Your task to perform on an android device: change text size in settings app Image 0: 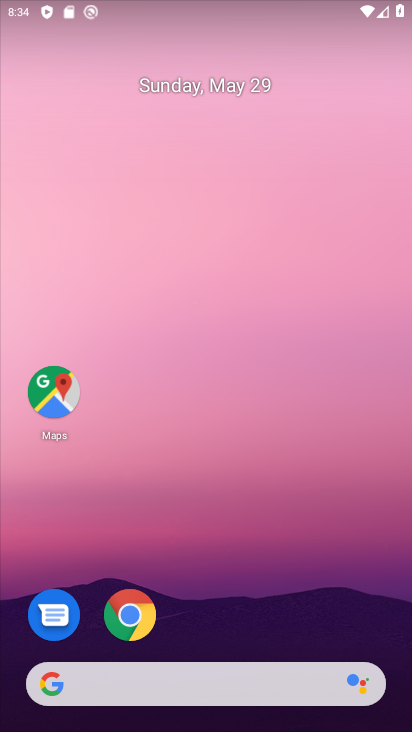
Step 0: drag from (233, 624) to (270, 0)
Your task to perform on an android device: change text size in settings app Image 1: 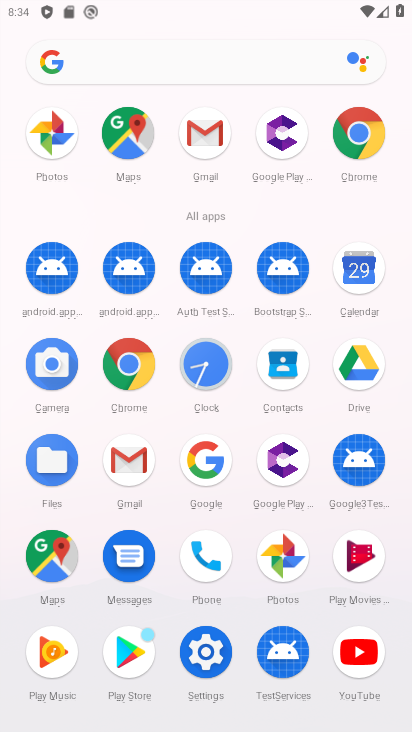
Step 1: drag from (246, 512) to (263, 52)
Your task to perform on an android device: change text size in settings app Image 2: 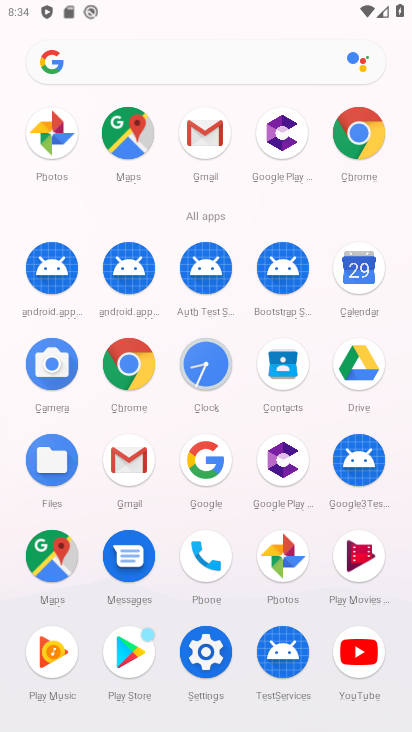
Step 2: click (204, 650)
Your task to perform on an android device: change text size in settings app Image 3: 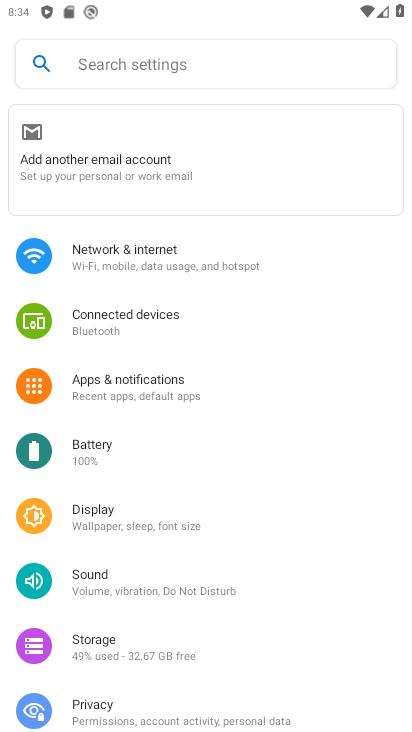
Step 3: click (145, 512)
Your task to perform on an android device: change text size in settings app Image 4: 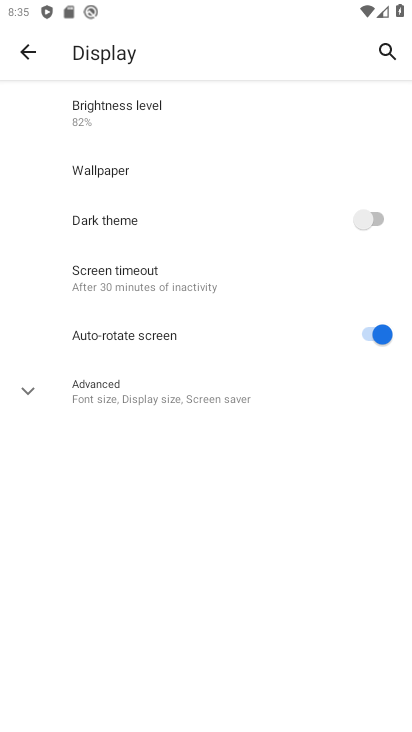
Step 4: click (109, 389)
Your task to perform on an android device: change text size in settings app Image 5: 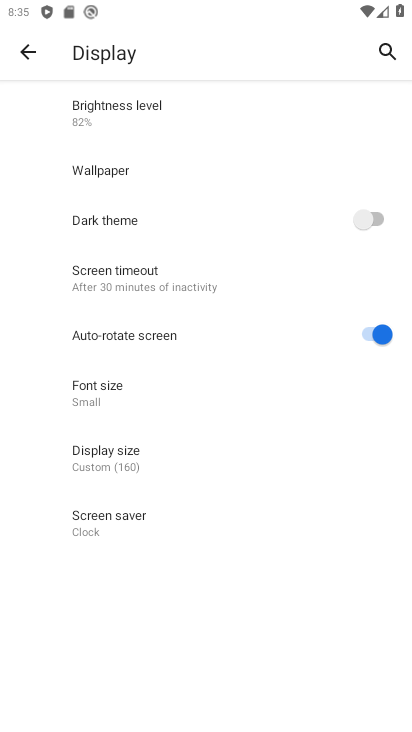
Step 5: click (109, 385)
Your task to perform on an android device: change text size in settings app Image 6: 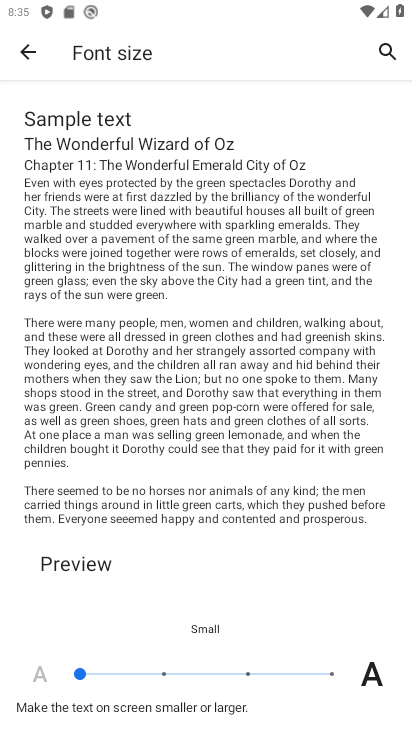
Step 6: click (154, 669)
Your task to perform on an android device: change text size in settings app Image 7: 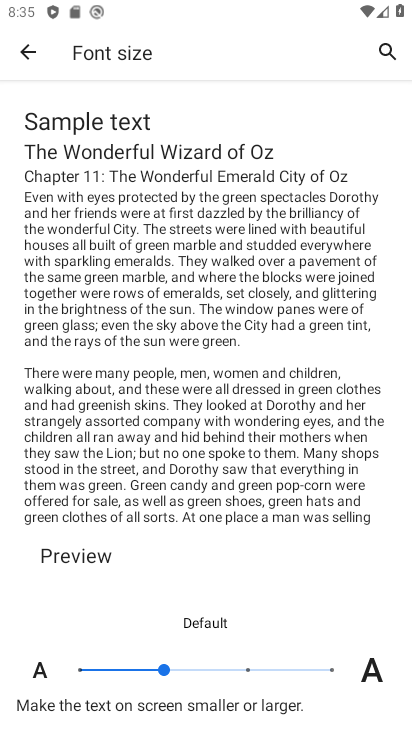
Step 7: task complete